Your task to perform on an android device: add a label to a message in the gmail app Image 0: 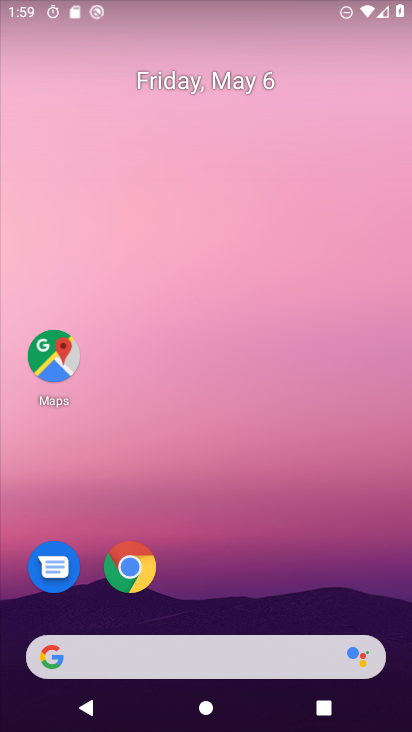
Step 0: drag from (271, 668) to (261, 241)
Your task to perform on an android device: add a label to a message in the gmail app Image 1: 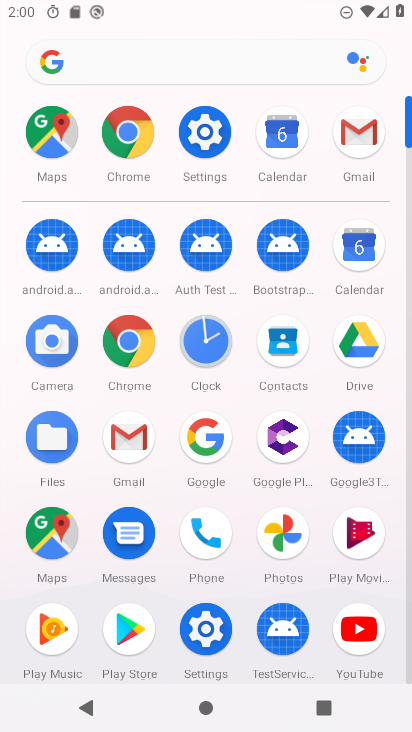
Step 1: click (356, 146)
Your task to perform on an android device: add a label to a message in the gmail app Image 2: 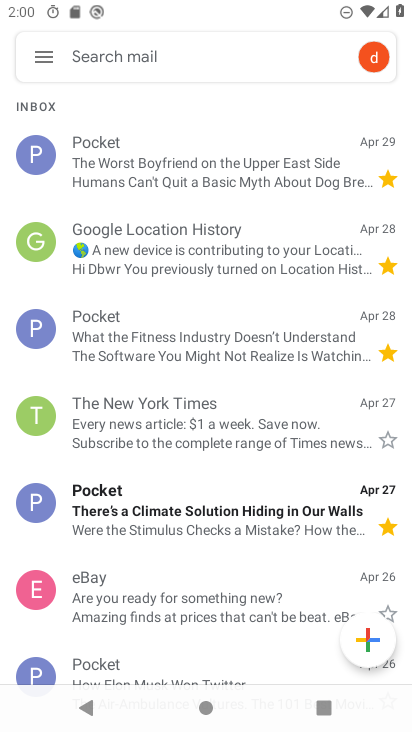
Step 2: click (36, 60)
Your task to perform on an android device: add a label to a message in the gmail app Image 3: 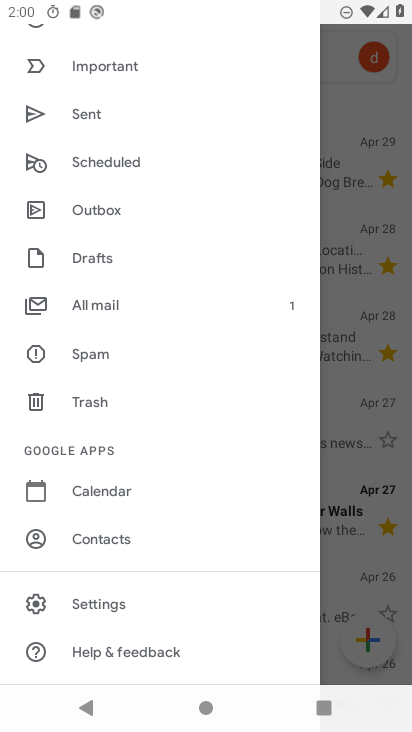
Step 3: click (132, 614)
Your task to perform on an android device: add a label to a message in the gmail app Image 4: 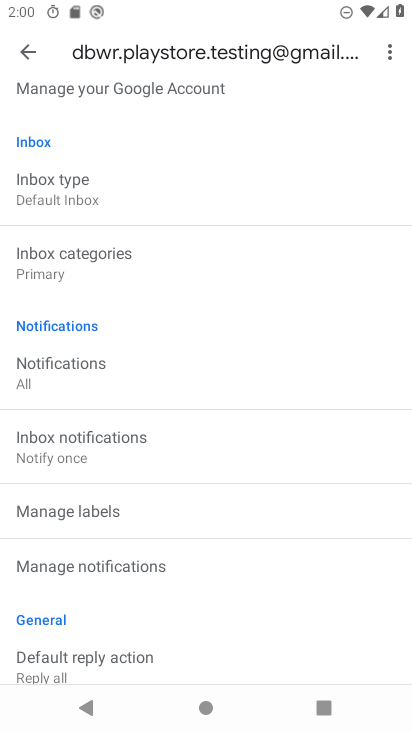
Step 4: click (146, 511)
Your task to perform on an android device: add a label to a message in the gmail app Image 5: 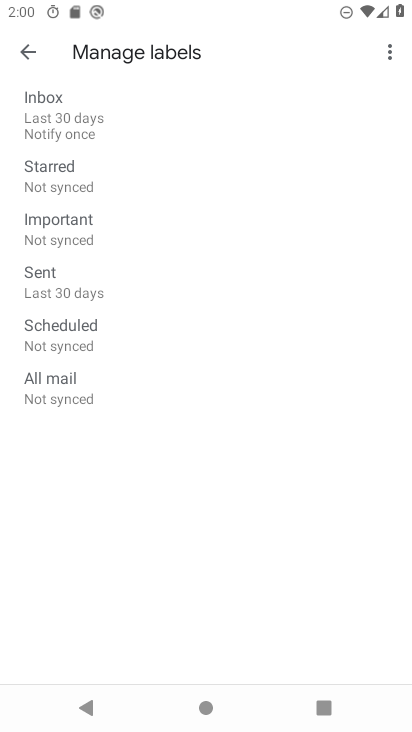
Step 5: click (124, 128)
Your task to perform on an android device: add a label to a message in the gmail app Image 6: 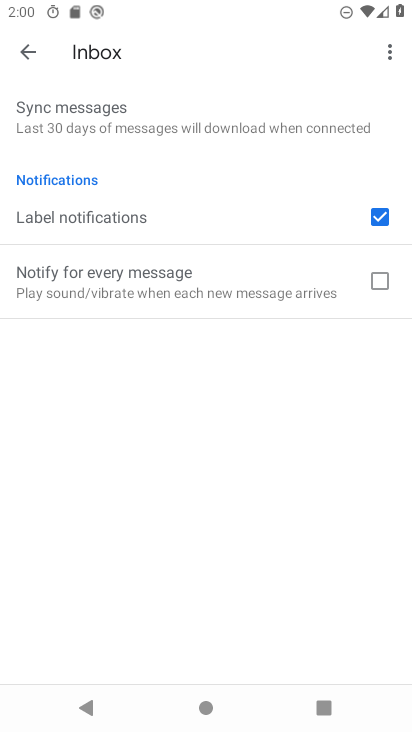
Step 6: task complete